Your task to perform on an android device: Open Amazon Image 0: 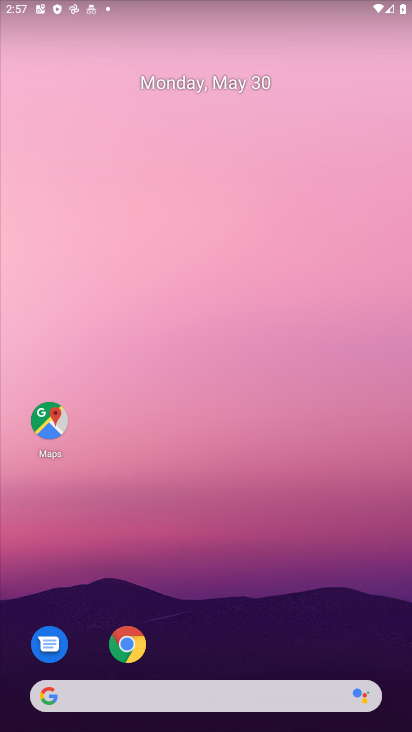
Step 0: drag from (308, 670) to (195, 81)
Your task to perform on an android device: Open Amazon Image 1: 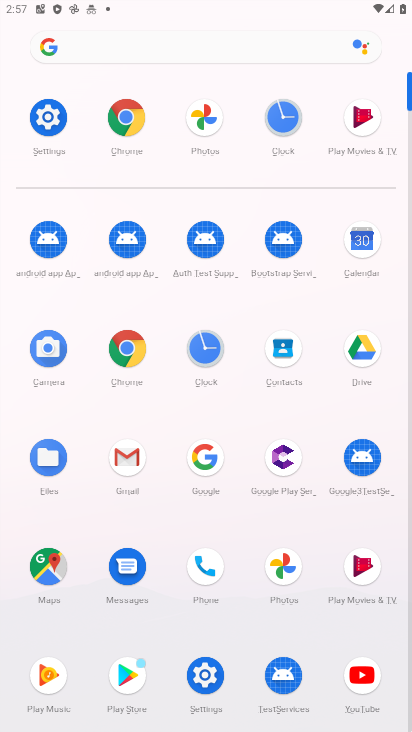
Step 1: click (130, 150)
Your task to perform on an android device: Open Amazon Image 2: 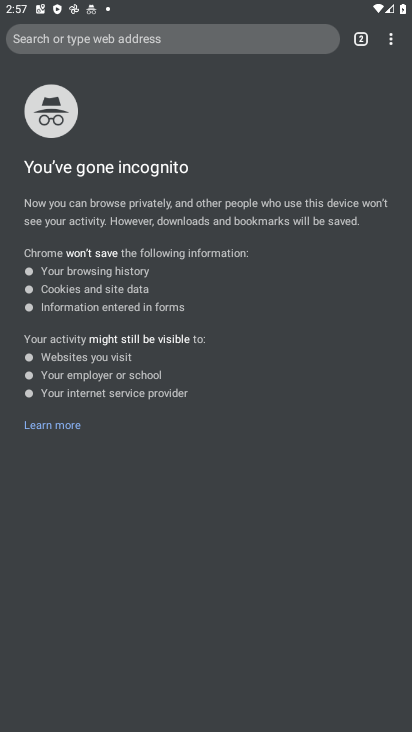
Step 2: click (357, 47)
Your task to perform on an android device: Open Amazon Image 3: 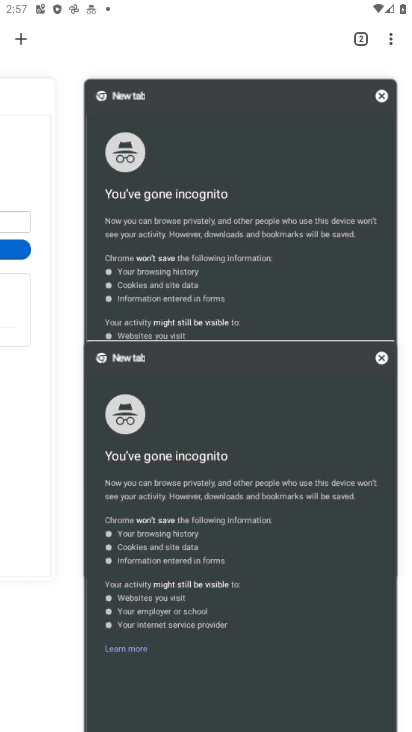
Step 3: click (380, 94)
Your task to perform on an android device: Open Amazon Image 4: 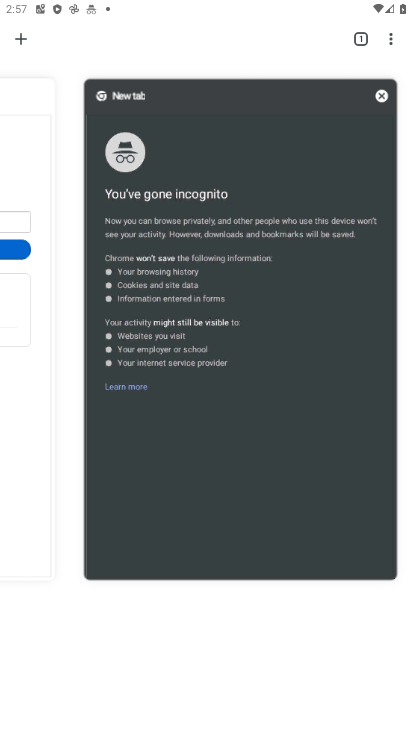
Step 4: click (380, 94)
Your task to perform on an android device: Open Amazon Image 5: 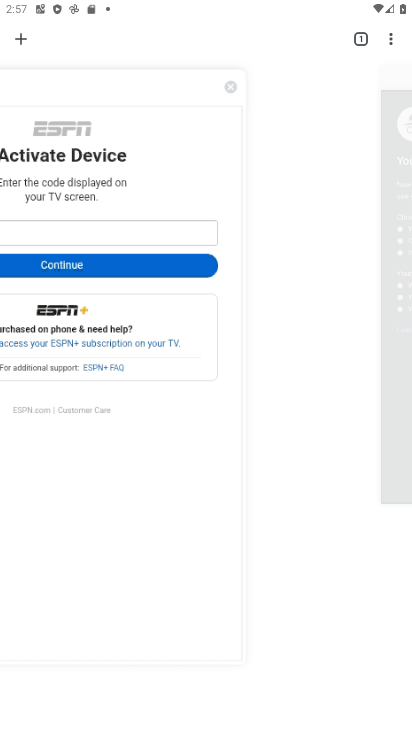
Step 5: click (53, 71)
Your task to perform on an android device: Open Amazon Image 6: 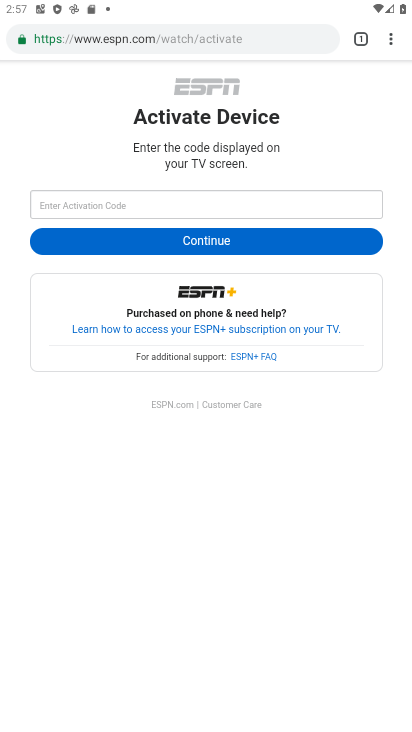
Step 6: click (359, 41)
Your task to perform on an android device: Open Amazon Image 7: 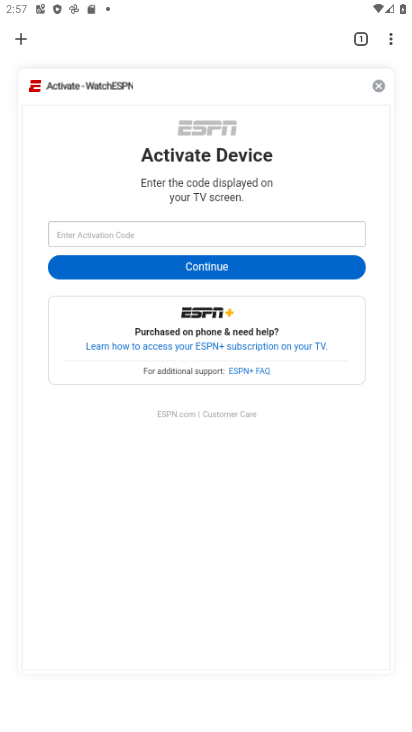
Step 7: click (373, 87)
Your task to perform on an android device: Open Amazon Image 8: 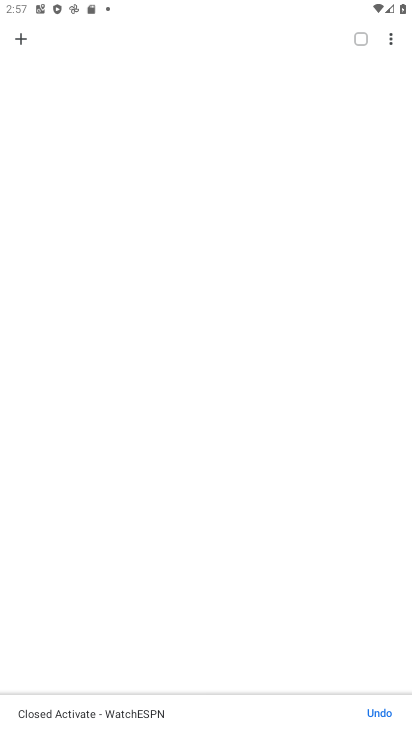
Step 8: click (21, 43)
Your task to perform on an android device: Open Amazon Image 9: 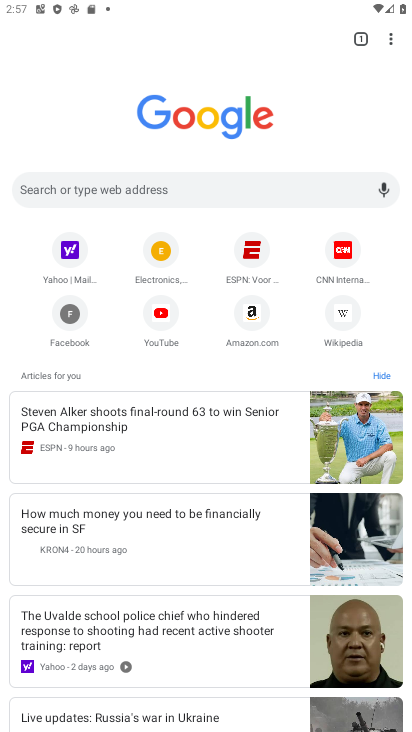
Step 9: click (251, 302)
Your task to perform on an android device: Open Amazon Image 10: 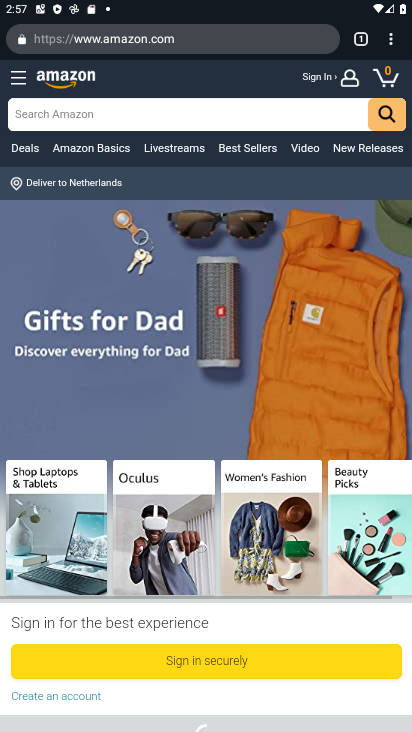
Step 10: task complete